Your task to perform on an android device: Clear all items from cart on newegg. Image 0: 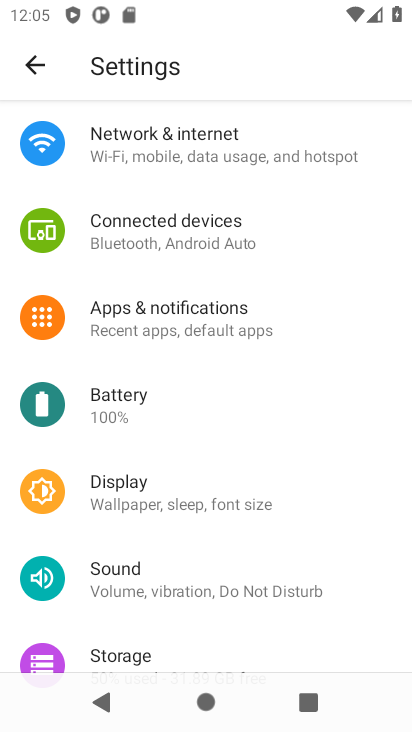
Step 0: press home button
Your task to perform on an android device: Clear all items from cart on newegg. Image 1: 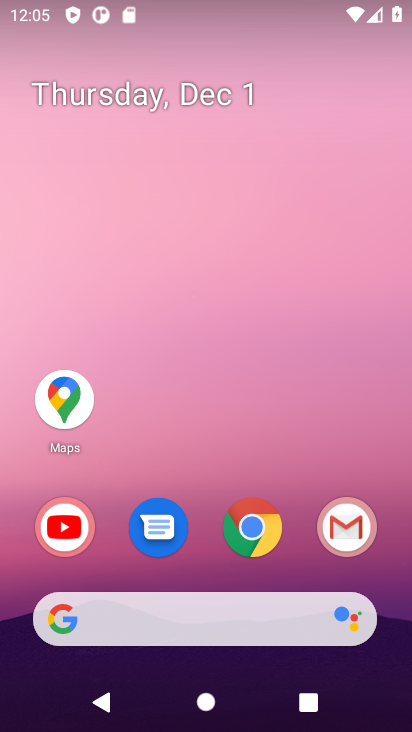
Step 1: click (269, 531)
Your task to perform on an android device: Clear all items from cart on newegg. Image 2: 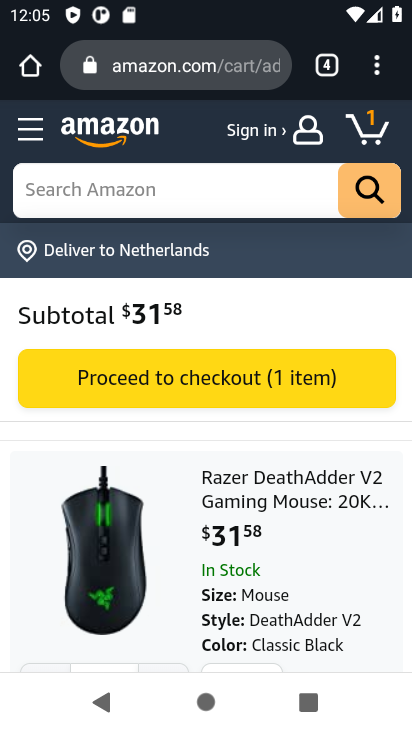
Step 2: click (184, 68)
Your task to perform on an android device: Clear all items from cart on newegg. Image 3: 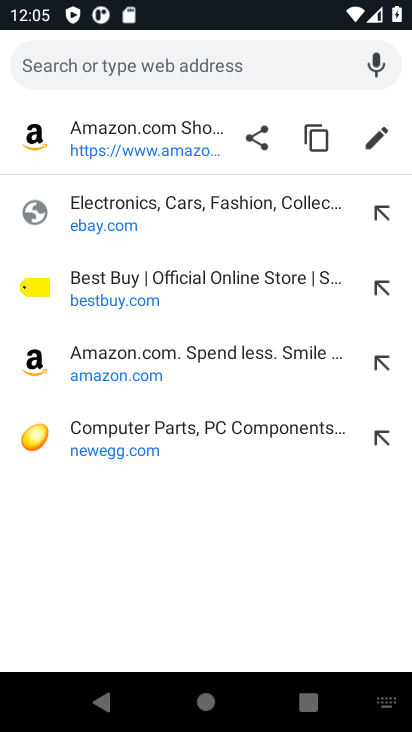
Step 3: click (115, 432)
Your task to perform on an android device: Clear all items from cart on newegg. Image 4: 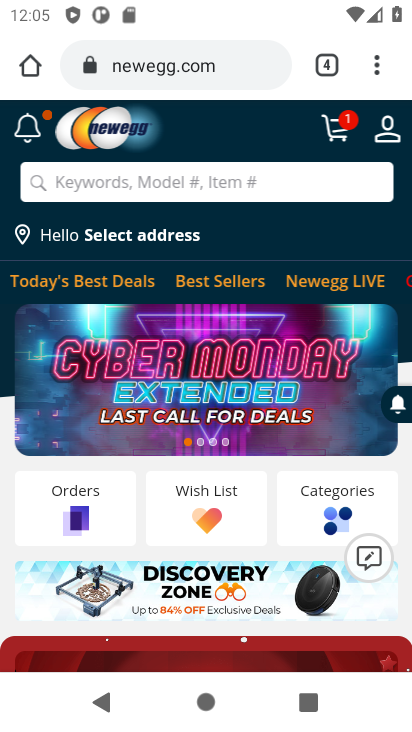
Step 4: click (341, 137)
Your task to perform on an android device: Clear all items from cart on newegg. Image 5: 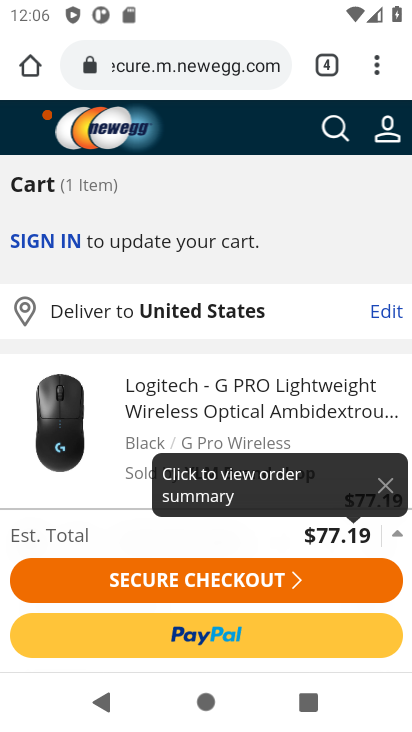
Step 5: drag from (206, 409) to (195, 278)
Your task to perform on an android device: Clear all items from cart on newegg. Image 6: 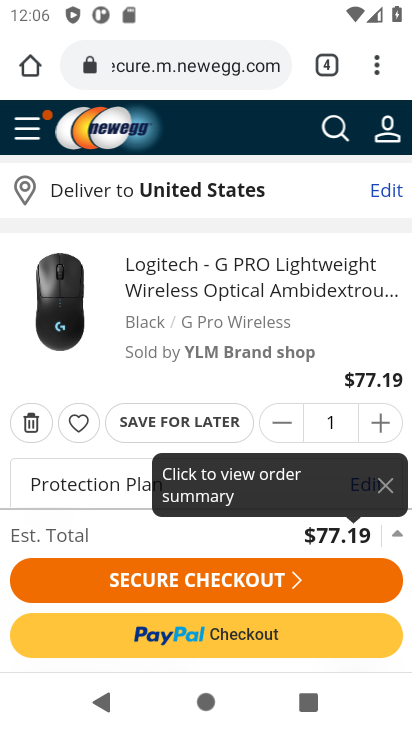
Step 6: click (26, 429)
Your task to perform on an android device: Clear all items from cart on newegg. Image 7: 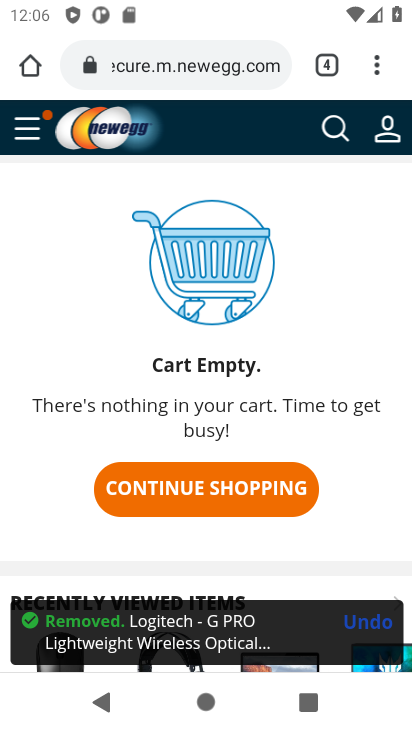
Step 7: task complete